Your task to perform on an android device: add a contact Image 0: 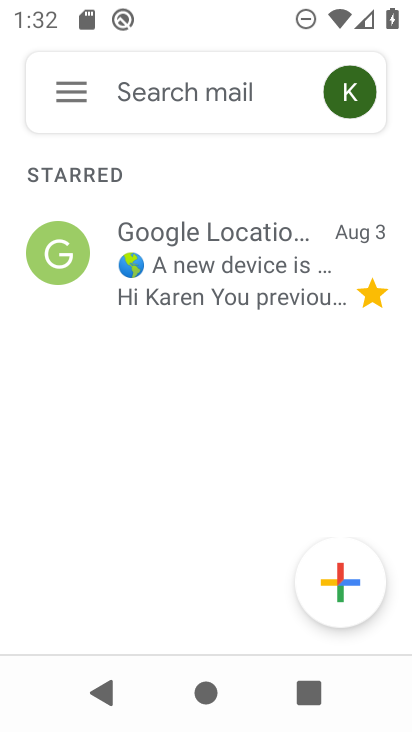
Step 0: press home button
Your task to perform on an android device: add a contact Image 1: 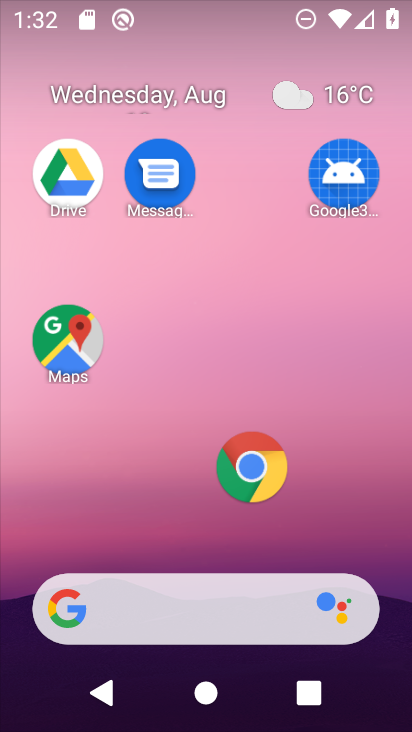
Step 1: drag from (154, 561) to (300, 70)
Your task to perform on an android device: add a contact Image 2: 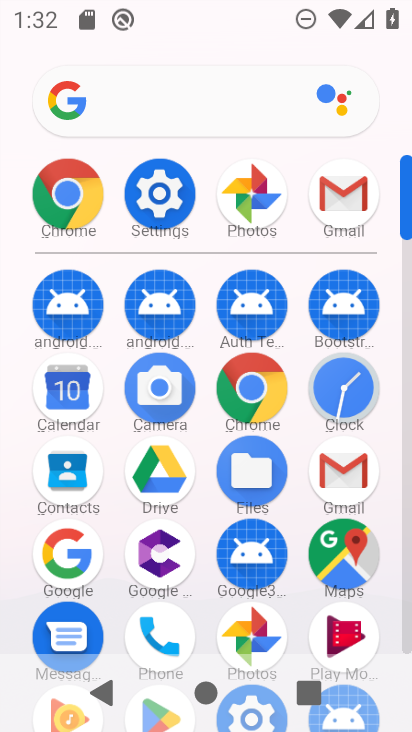
Step 2: drag from (251, 452) to (270, 211)
Your task to perform on an android device: add a contact Image 3: 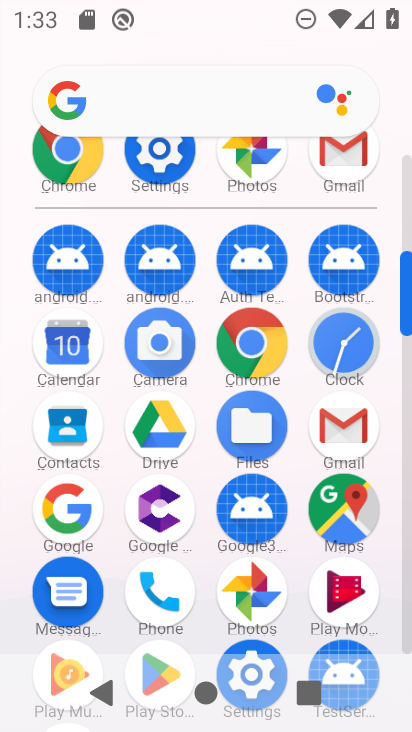
Step 3: click (74, 421)
Your task to perform on an android device: add a contact Image 4: 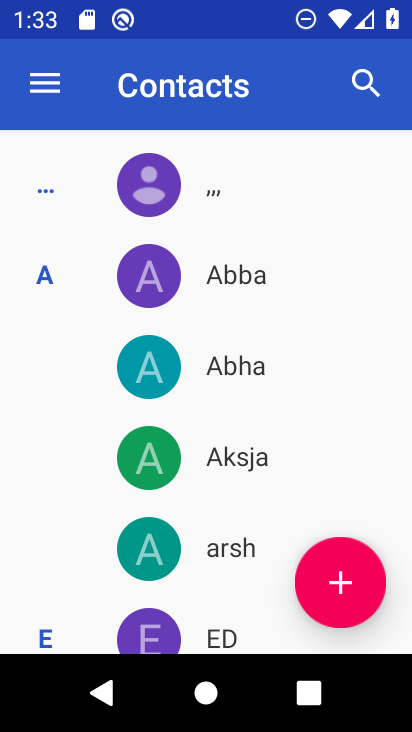
Step 4: click (342, 589)
Your task to perform on an android device: add a contact Image 5: 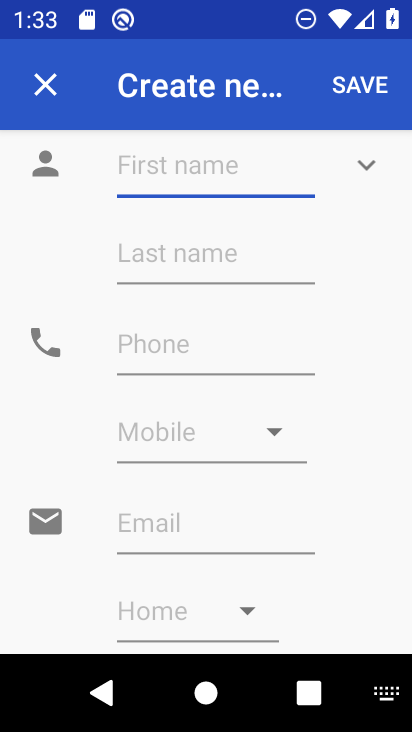
Step 5: type "oiuygfdsdf"
Your task to perform on an android device: add a contact Image 6: 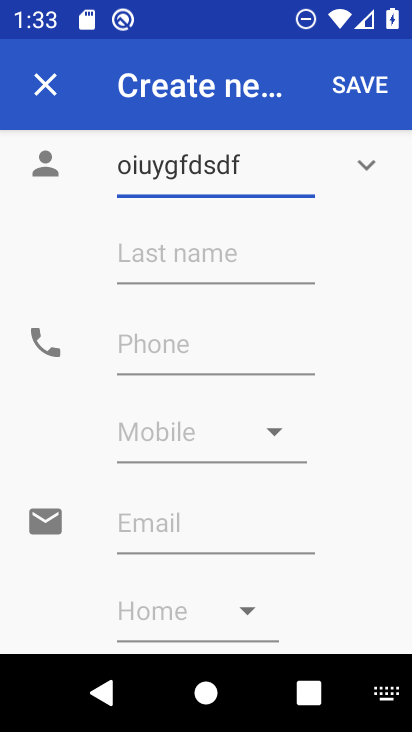
Step 6: click (166, 347)
Your task to perform on an android device: add a contact Image 7: 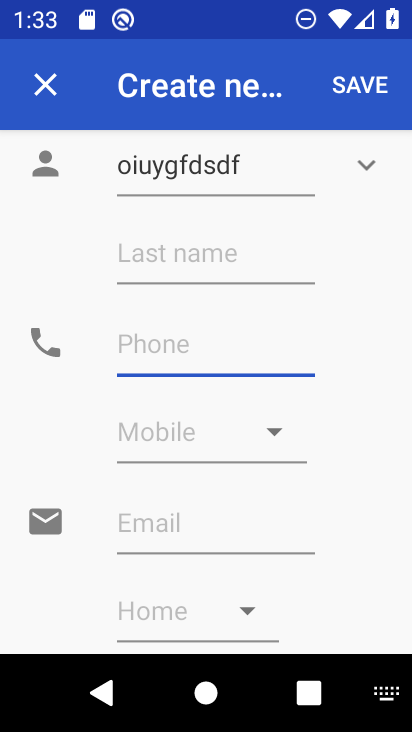
Step 7: type "987654323"
Your task to perform on an android device: add a contact Image 8: 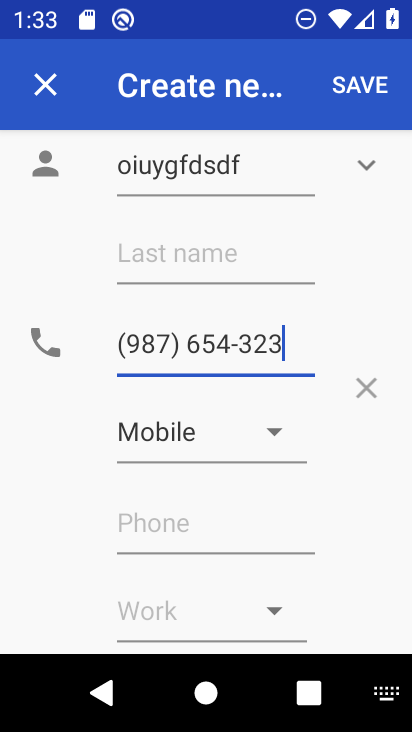
Step 8: click (369, 93)
Your task to perform on an android device: add a contact Image 9: 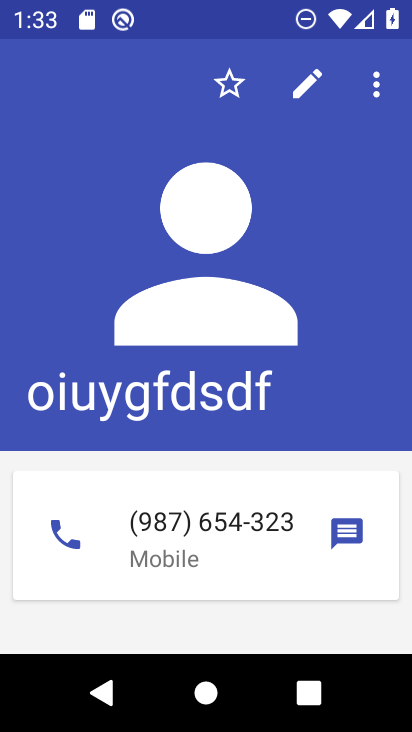
Step 9: task complete